Your task to perform on an android device: snooze an email in the gmail app Image 0: 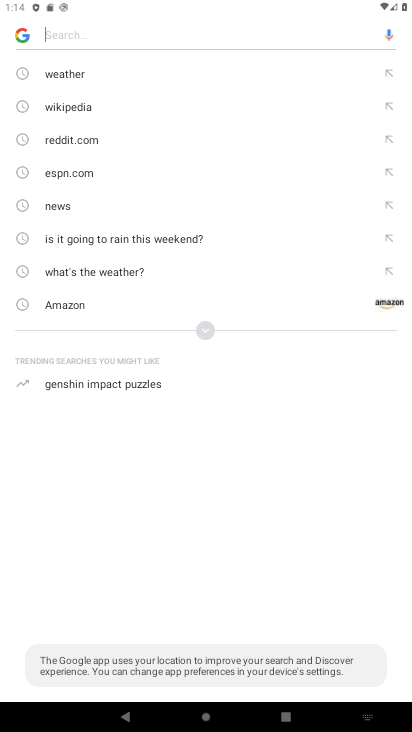
Step 0: press home button
Your task to perform on an android device: snooze an email in the gmail app Image 1: 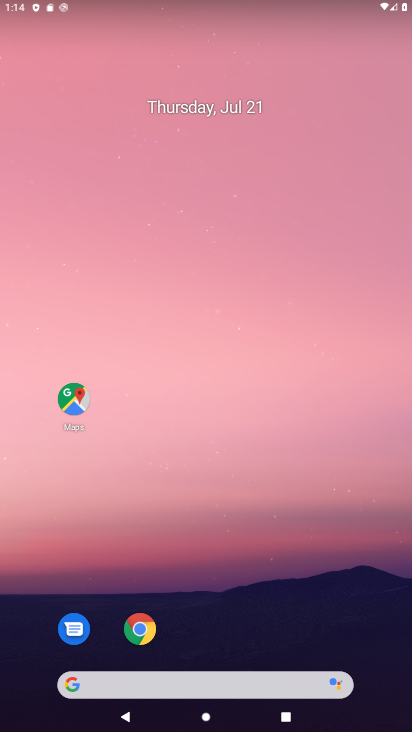
Step 1: drag from (275, 591) to (274, 131)
Your task to perform on an android device: snooze an email in the gmail app Image 2: 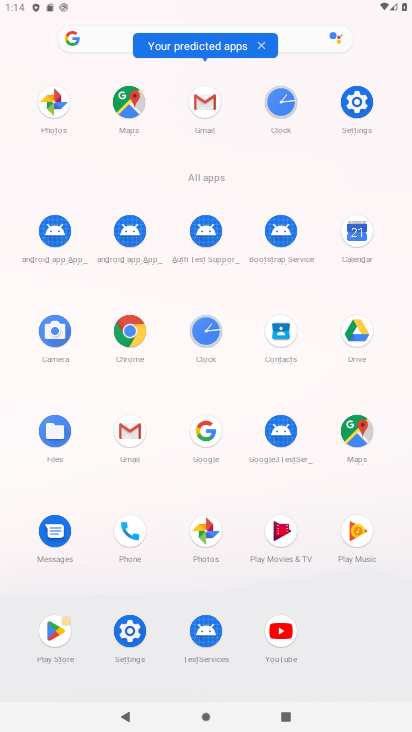
Step 2: click (203, 96)
Your task to perform on an android device: snooze an email in the gmail app Image 3: 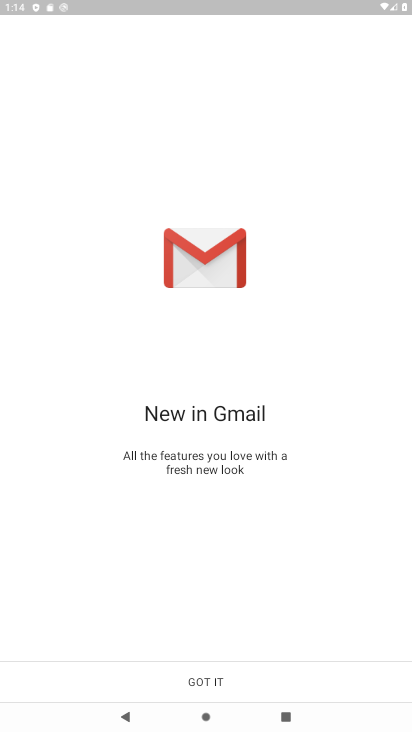
Step 3: click (193, 678)
Your task to perform on an android device: snooze an email in the gmail app Image 4: 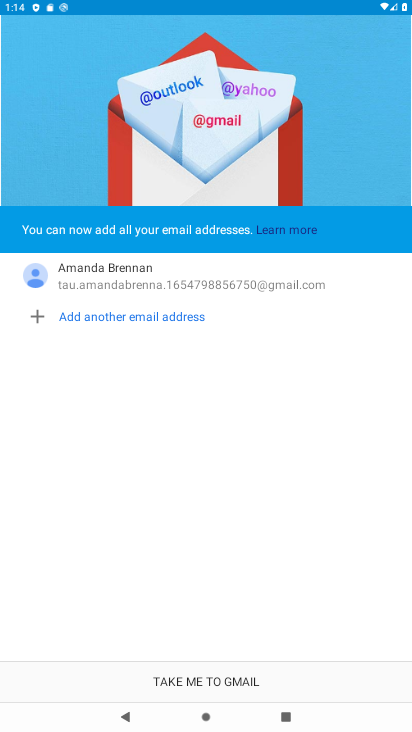
Step 4: click (193, 678)
Your task to perform on an android device: snooze an email in the gmail app Image 5: 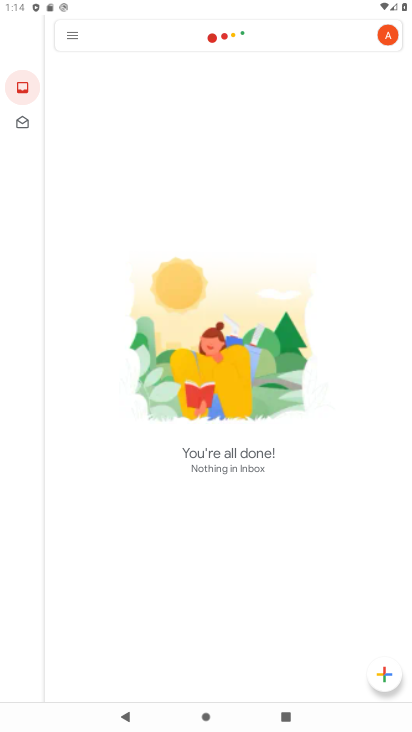
Step 5: click (72, 46)
Your task to perform on an android device: snooze an email in the gmail app Image 6: 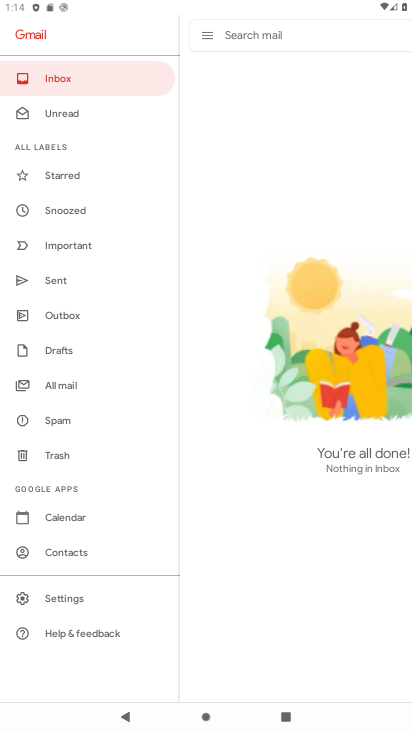
Step 6: click (60, 386)
Your task to perform on an android device: snooze an email in the gmail app Image 7: 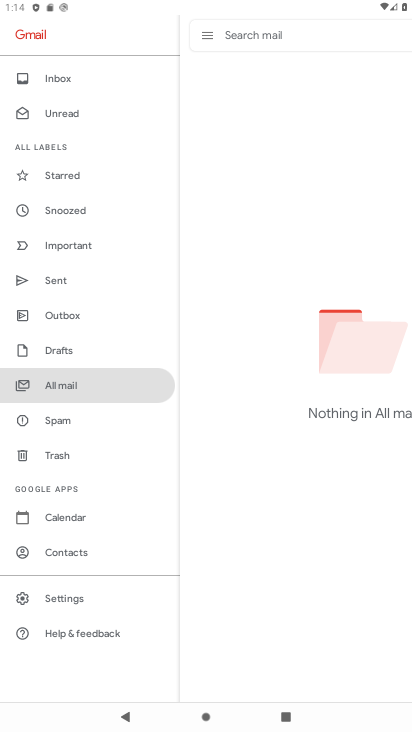
Step 7: task complete